Your task to perform on an android device: find which apps use the phone's location Image 0: 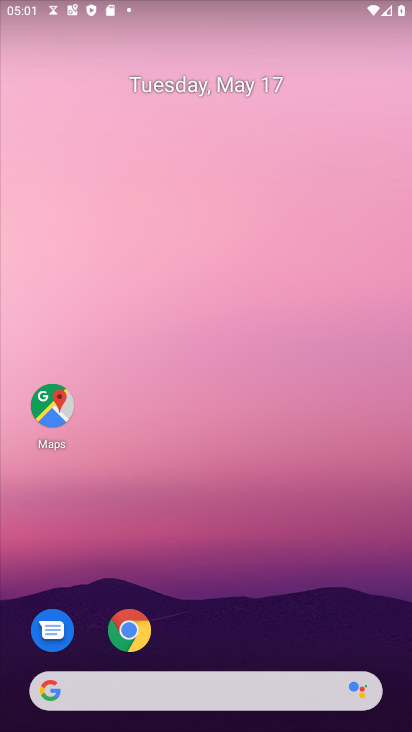
Step 0: drag from (242, 517) to (97, 154)
Your task to perform on an android device: find which apps use the phone's location Image 1: 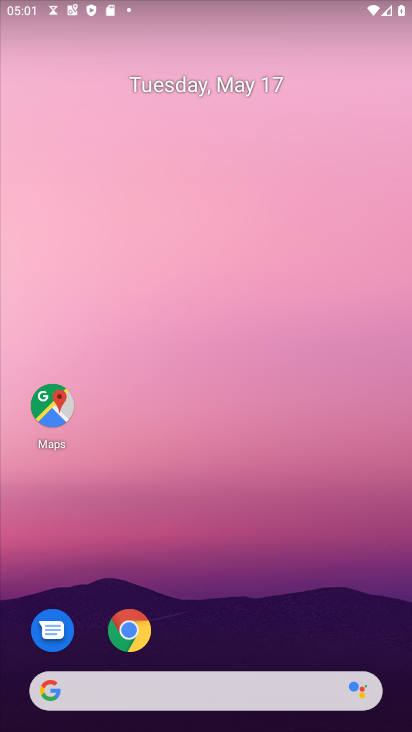
Step 1: drag from (299, 520) to (133, 134)
Your task to perform on an android device: find which apps use the phone's location Image 2: 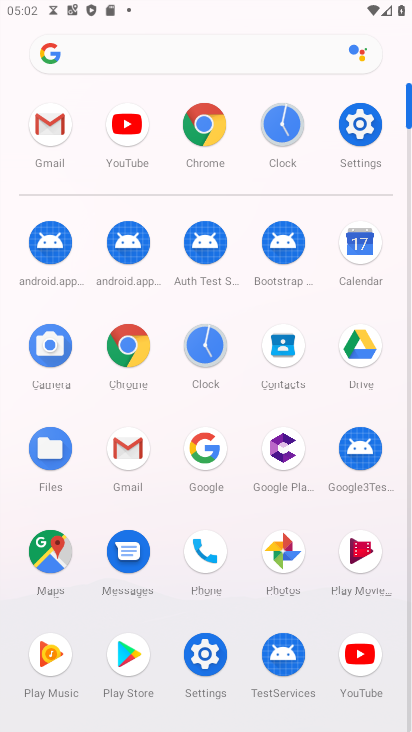
Step 2: click (195, 557)
Your task to perform on an android device: find which apps use the phone's location Image 3: 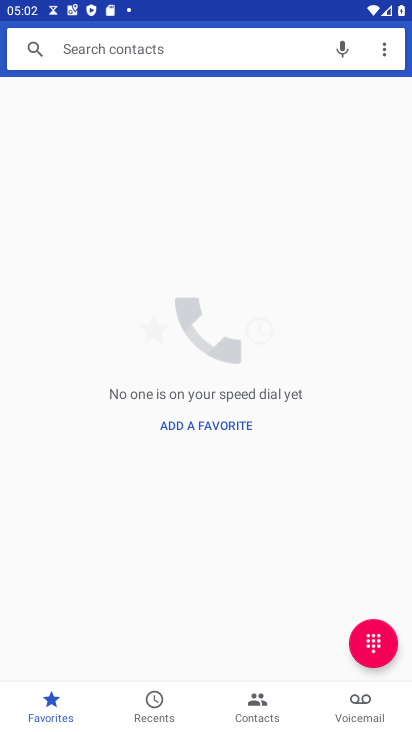
Step 3: press home button
Your task to perform on an android device: find which apps use the phone's location Image 4: 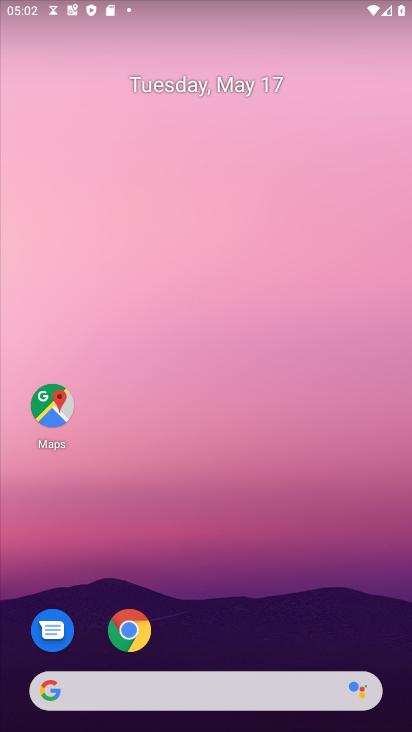
Step 4: drag from (107, 367) to (101, 280)
Your task to perform on an android device: find which apps use the phone's location Image 5: 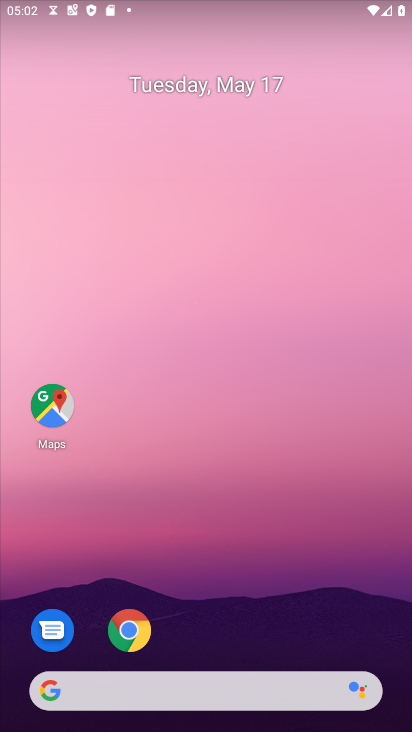
Step 5: drag from (233, 616) to (143, 170)
Your task to perform on an android device: find which apps use the phone's location Image 6: 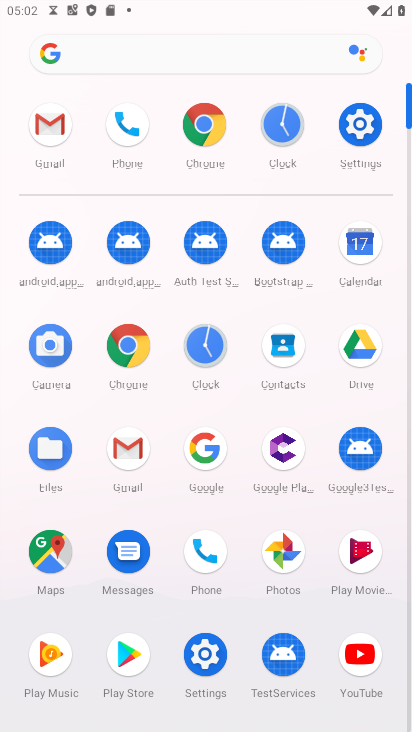
Step 6: click (202, 549)
Your task to perform on an android device: find which apps use the phone's location Image 7: 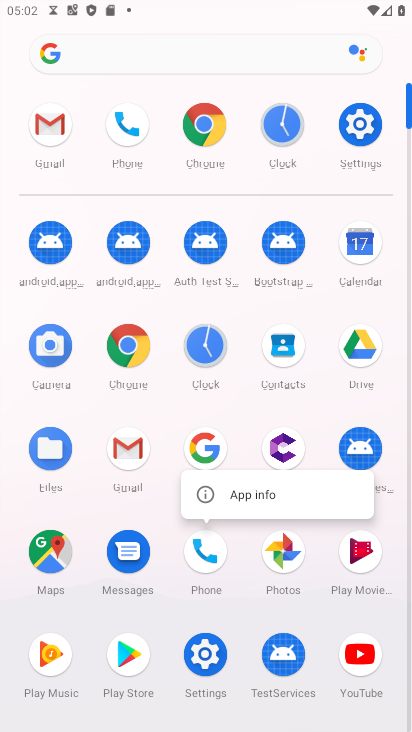
Step 7: click (243, 492)
Your task to perform on an android device: find which apps use the phone's location Image 8: 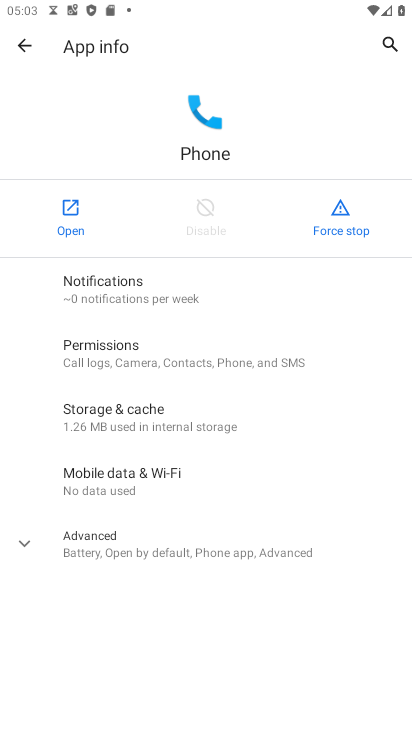
Step 8: click (132, 355)
Your task to perform on an android device: find which apps use the phone's location Image 9: 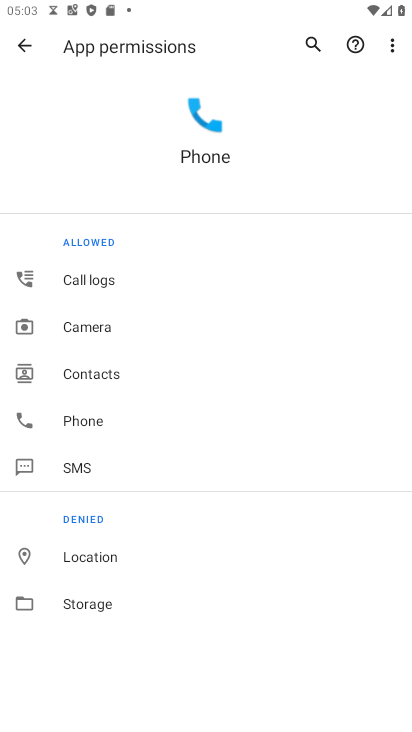
Step 9: click (97, 562)
Your task to perform on an android device: find which apps use the phone's location Image 10: 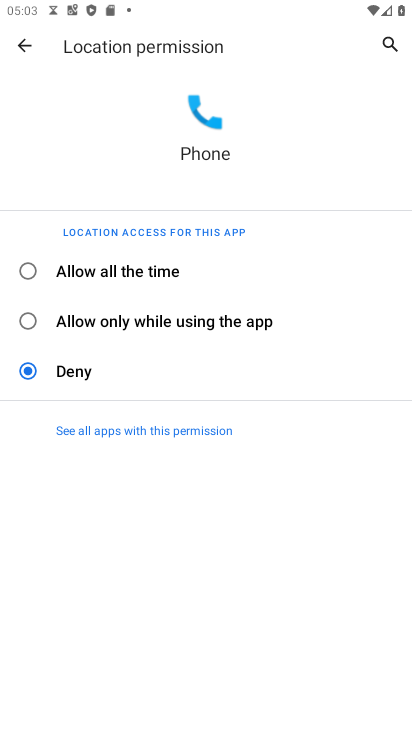
Step 10: task complete